Your task to perform on an android device: Show me popular videos on Youtube Image 0: 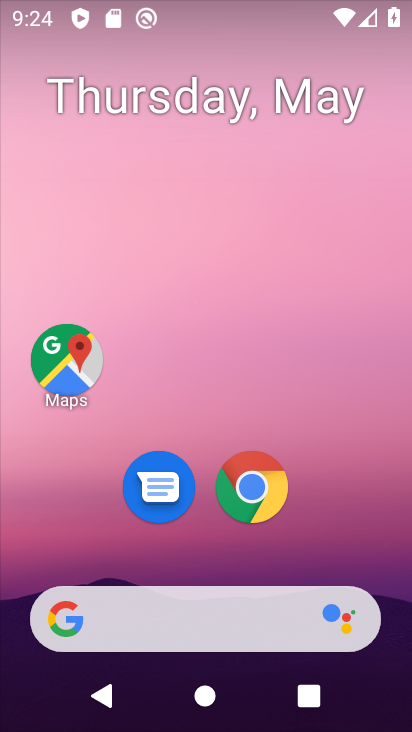
Step 0: drag from (164, 563) to (233, 99)
Your task to perform on an android device: Show me popular videos on Youtube Image 1: 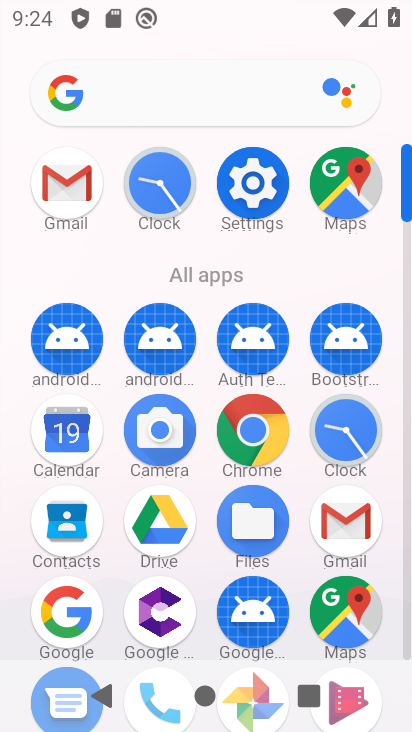
Step 1: drag from (211, 612) to (330, 5)
Your task to perform on an android device: Show me popular videos on Youtube Image 2: 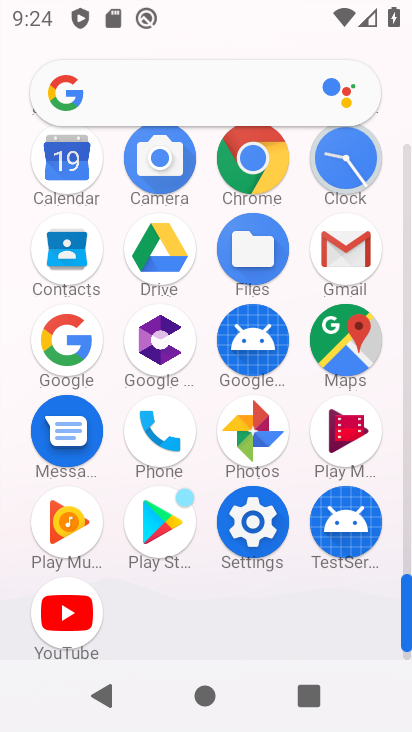
Step 2: click (39, 585)
Your task to perform on an android device: Show me popular videos on Youtube Image 3: 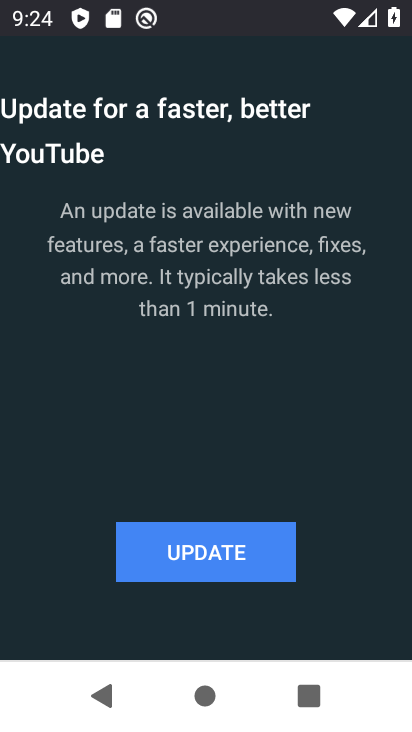
Step 3: click (192, 555)
Your task to perform on an android device: Show me popular videos on Youtube Image 4: 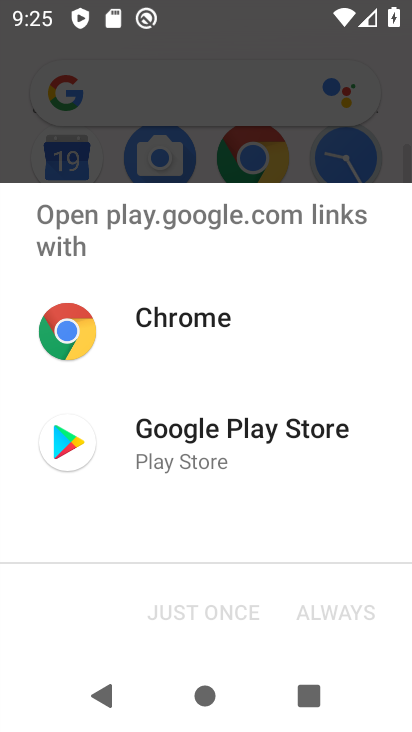
Step 4: click (238, 454)
Your task to perform on an android device: Show me popular videos on Youtube Image 5: 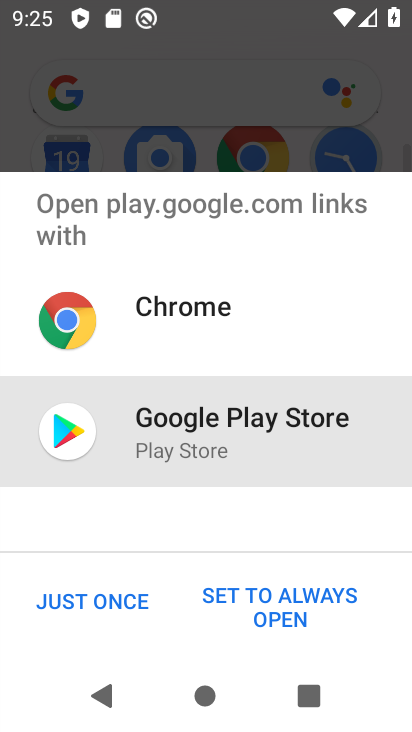
Step 5: click (125, 608)
Your task to perform on an android device: Show me popular videos on Youtube Image 6: 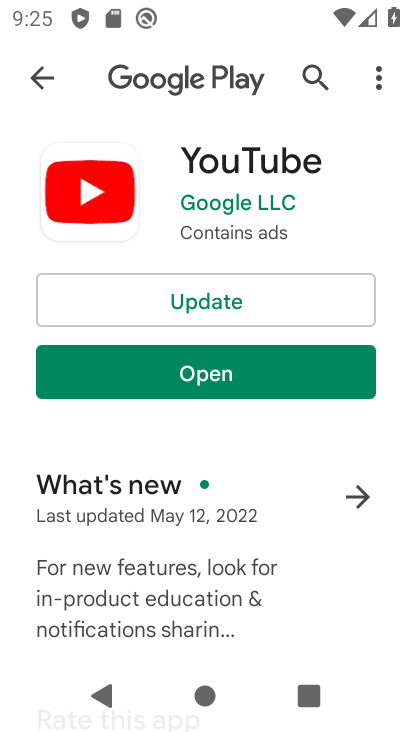
Step 6: click (240, 306)
Your task to perform on an android device: Show me popular videos on Youtube Image 7: 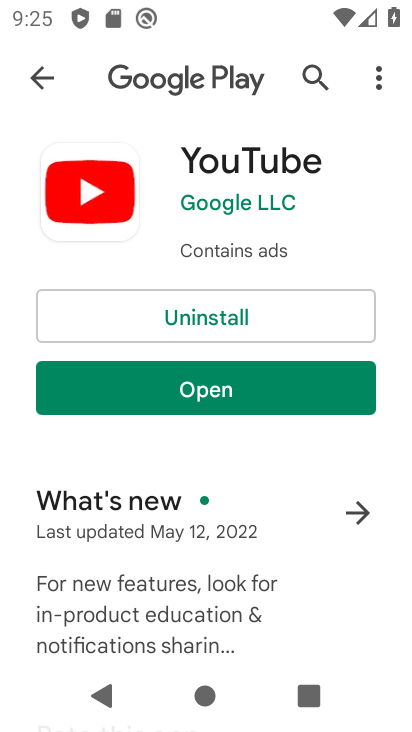
Step 7: click (213, 400)
Your task to perform on an android device: Show me popular videos on Youtube Image 8: 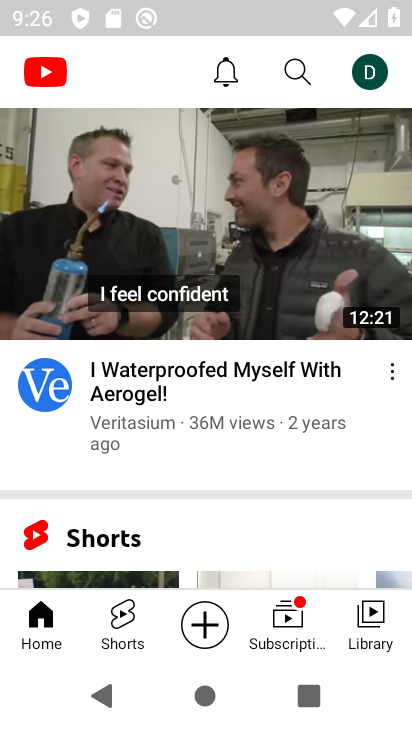
Step 8: drag from (217, 180) to (174, 548)
Your task to perform on an android device: Show me popular videos on Youtube Image 9: 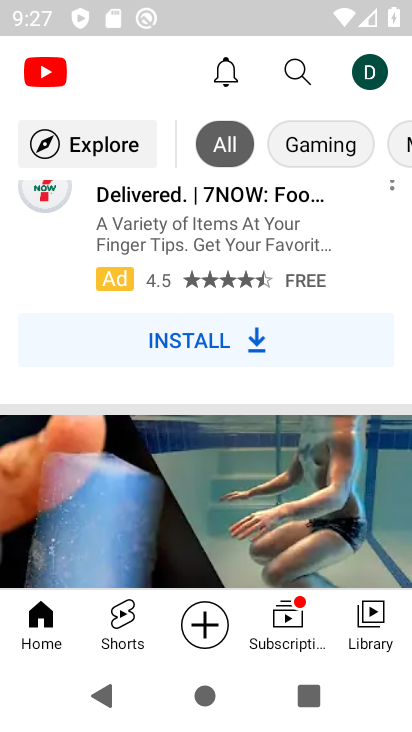
Step 9: click (81, 134)
Your task to perform on an android device: Show me popular videos on Youtube Image 10: 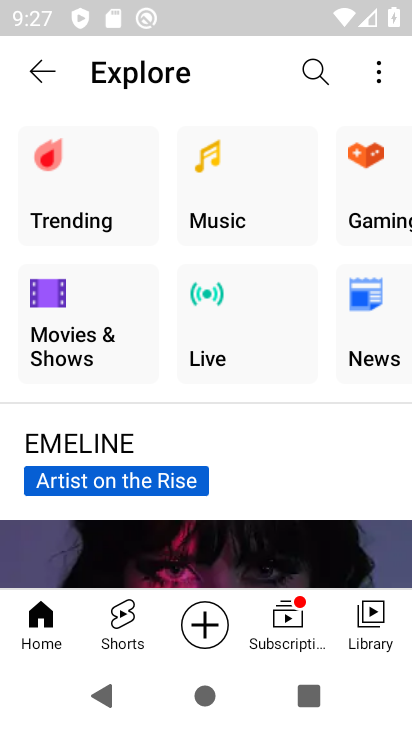
Step 10: task complete